Your task to perform on an android device: Is it going to rain this weekend? Image 0: 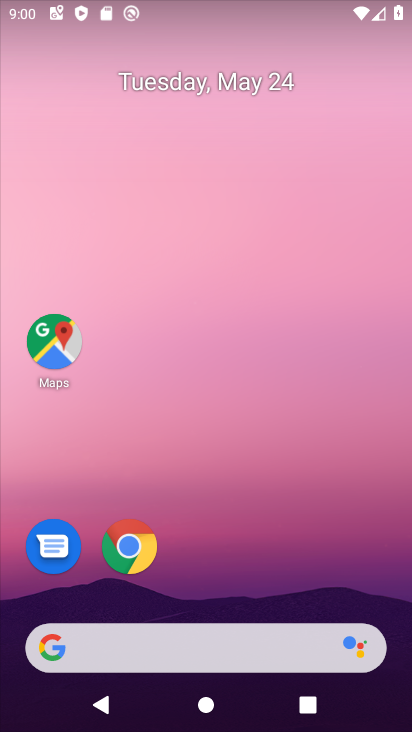
Step 0: drag from (257, 540) to (274, 223)
Your task to perform on an android device: Is it going to rain this weekend? Image 1: 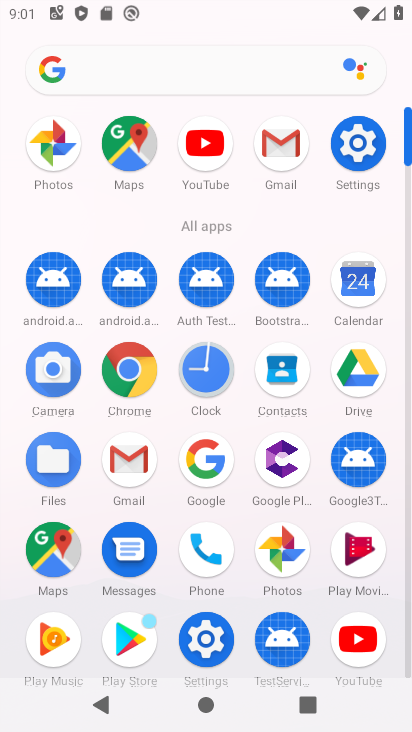
Step 1: click (200, 467)
Your task to perform on an android device: Is it going to rain this weekend? Image 2: 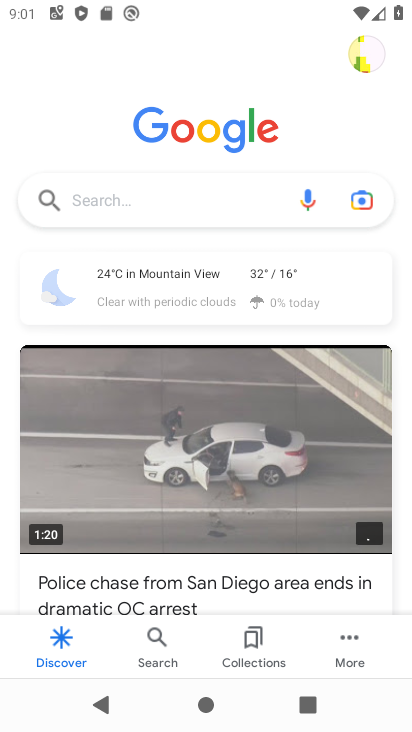
Step 2: drag from (195, 208) to (84, 208)
Your task to perform on an android device: Is it going to rain this weekend? Image 3: 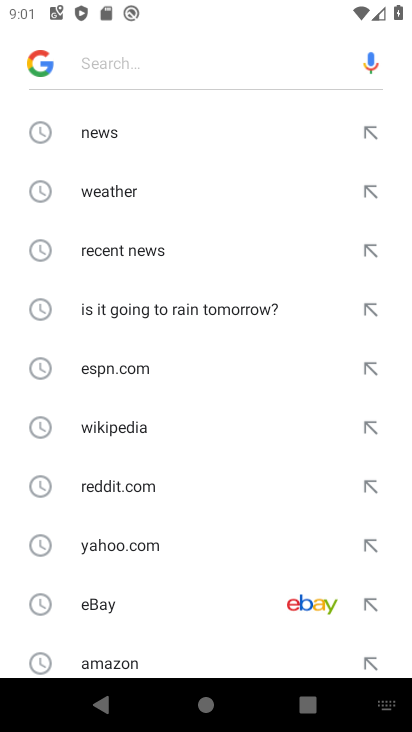
Step 3: drag from (153, 637) to (213, 264)
Your task to perform on an android device: Is it going to rain this weekend? Image 4: 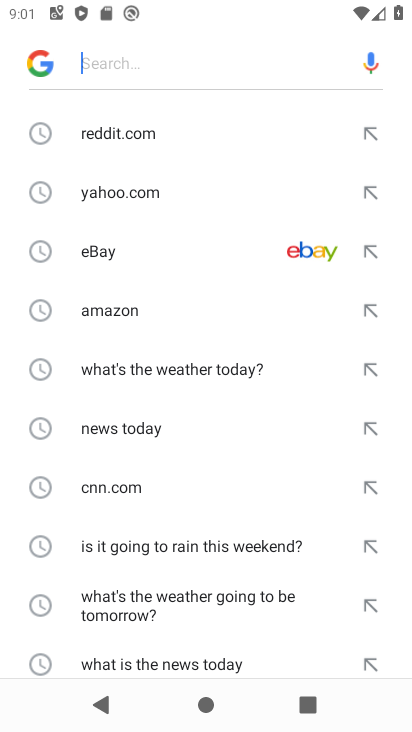
Step 4: drag from (188, 657) to (214, 390)
Your task to perform on an android device: Is it going to rain this weekend? Image 5: 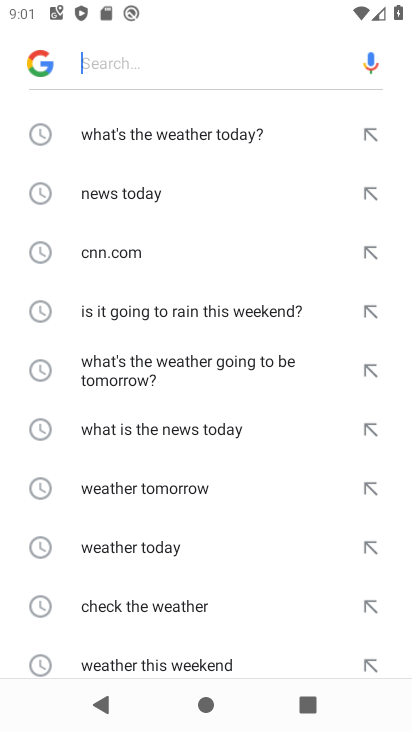
Step 5: drag from (162, 664) to (164, 414)
Your task to perform on an android device: Is it going to rain this weekend? Image 6: 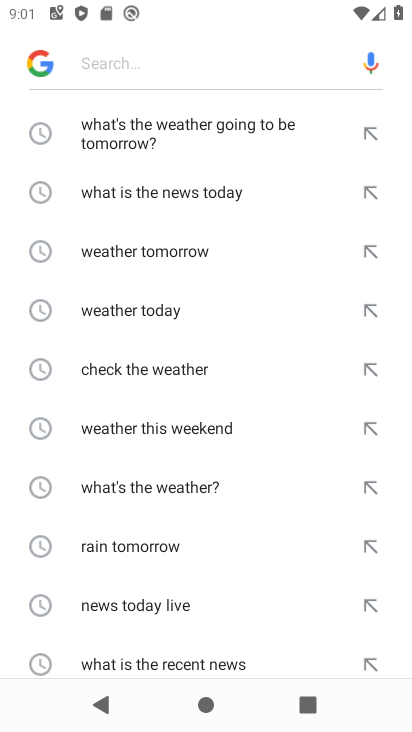
Step 6: drag from (179, 641) to (176, 390)
Your task to perform on an android device: Is it going to rain this weekend? Image 7: 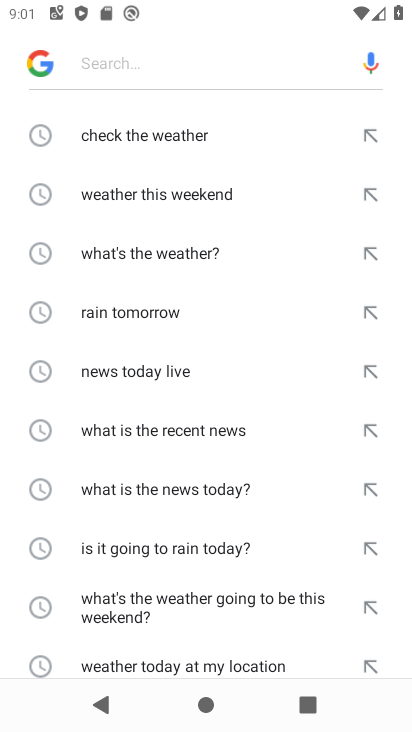
Step 7: click (100, 546)
Your task to perform on an android device: Is it going to rain this weekend? Image 8: 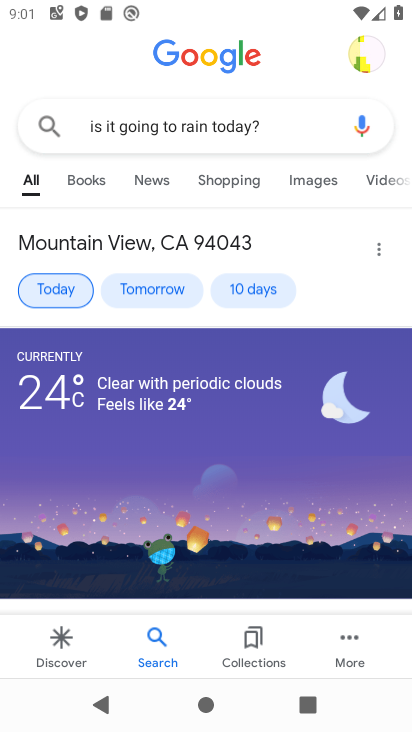
Step 8: task complete